Your task to perform on an android device: turn on airplane mode Image 0: 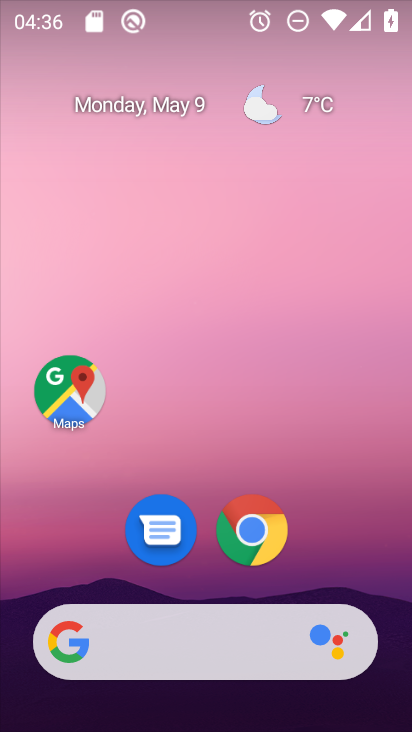
Step 0: drag from (203, 586) to (208, 113)
Your task to perform on an android device: turn on airplane mode Image 1: 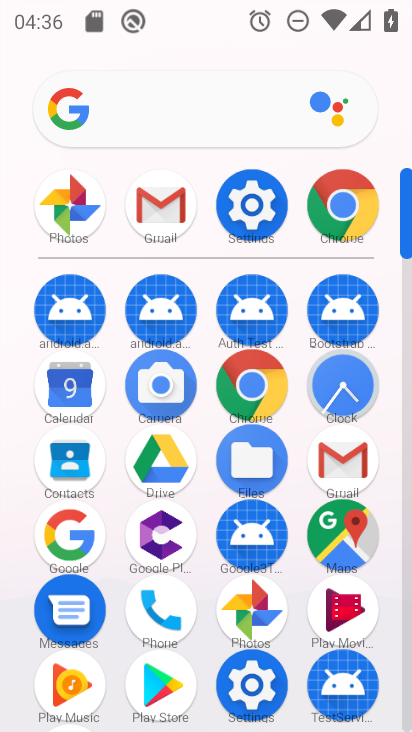
Step 1: drag from (255, 11) to (255, 696)
Your task to perform on an android device: turn on airplane mode Image 2: 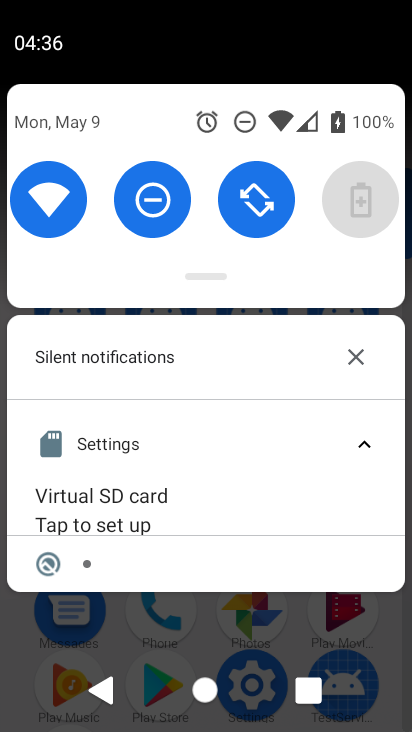
Step 2: drag from (218, 289) to (210, 710)
Your task to perform on an android device: turn on airplane mode Image 3: 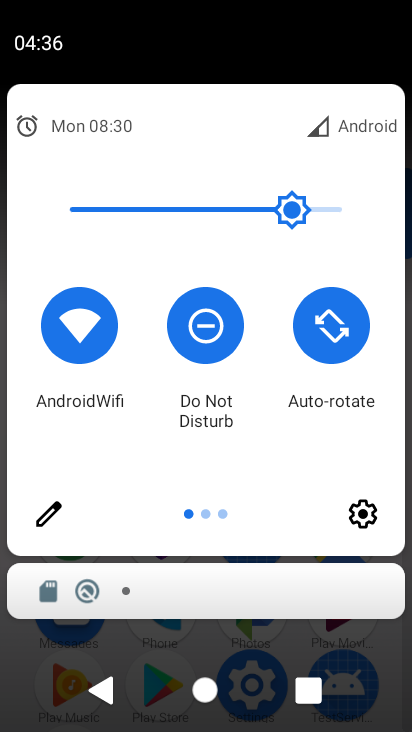
Step 3: drag from (360, 368) to (10, 383)
Your task to perform on an android device: turn on airplane mode Image 4: 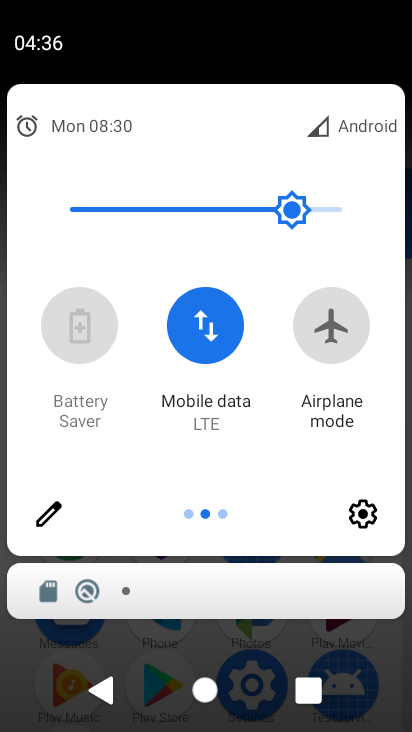
Step 4: click (312, 331)
Your task to perform on an android device: turn on airplane mode Image 5: 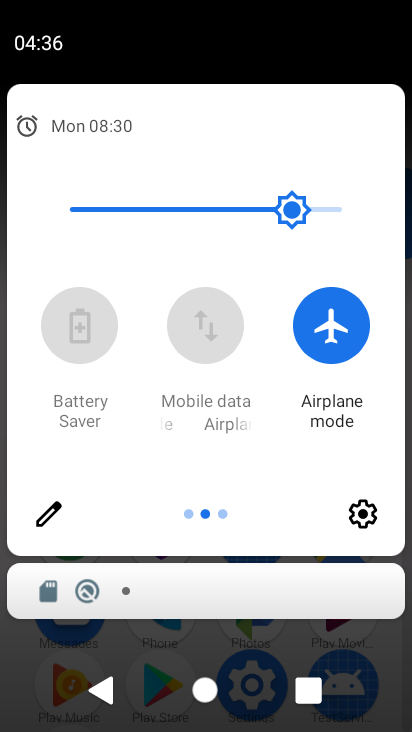
Step 5: task complete